Your task to perform on an android device: change timer sound Image 0: 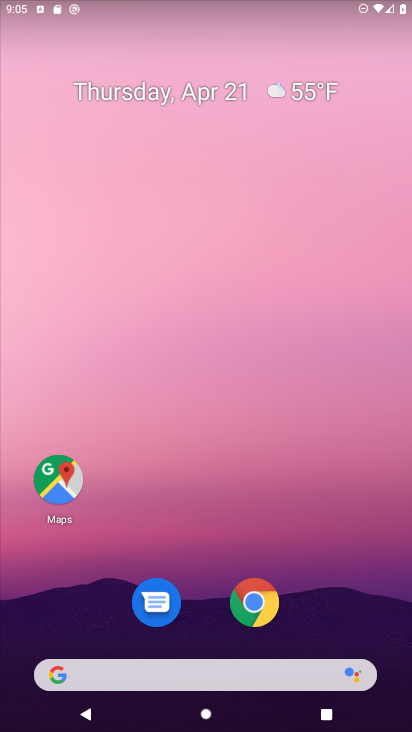
Step 0: drag from (202, 640) to (187, 266)
Your task to perform on an android device: change timer sound Image 1: 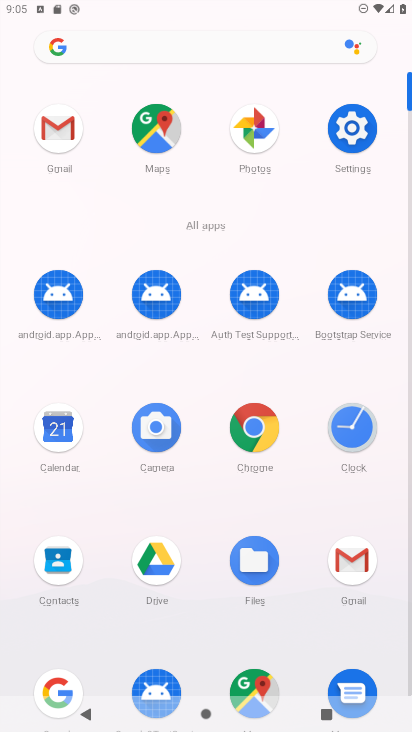
Step 1: click (347, 427)
Your task to perform on an android device: change timer sound Image 2: 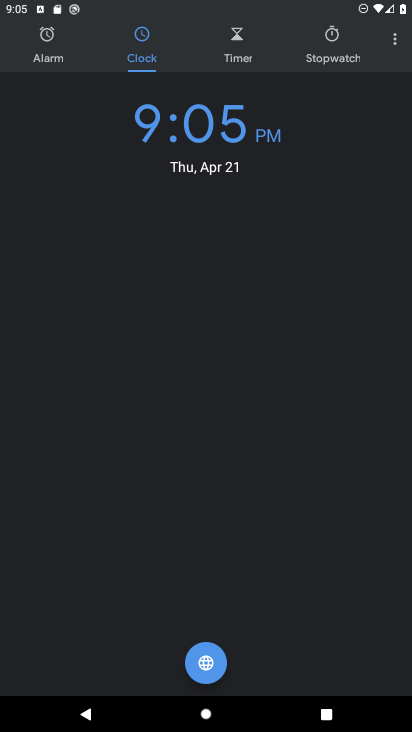
Step 2: click (405, 40)
Your task to perform on an android device: change timer sound Image 3: 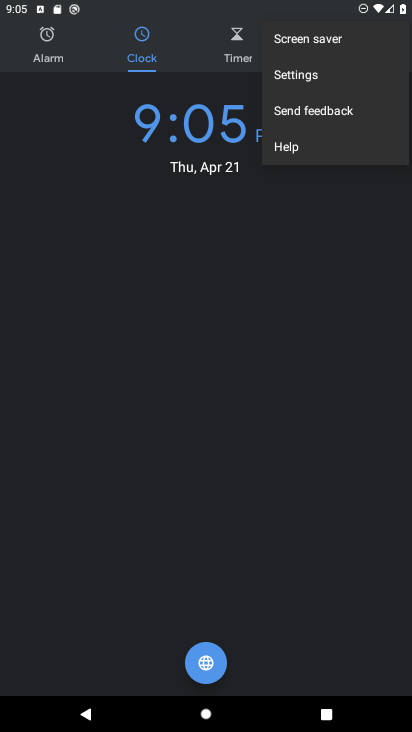
Step 3: click (292, 83)
Your task to perform on an android device: change timer sound Image 4: 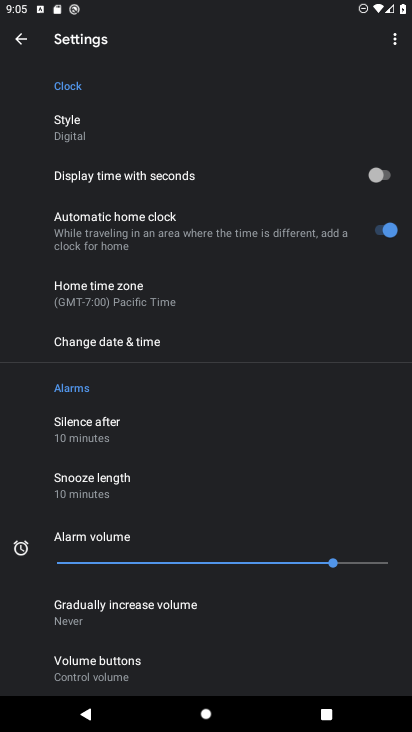
Step 4: drag from (283, 659) to (280, 200)
Your task to perform on an android device: change timer sound Image 5: 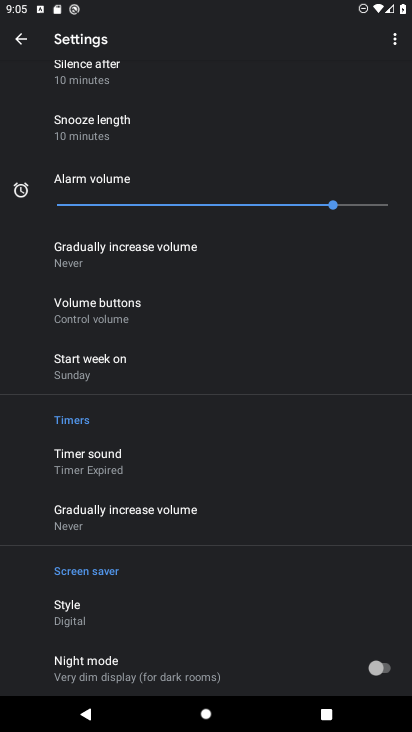
Step 5: click (169, 445)
Your task to perform on an android device: change timer sound Image 6: 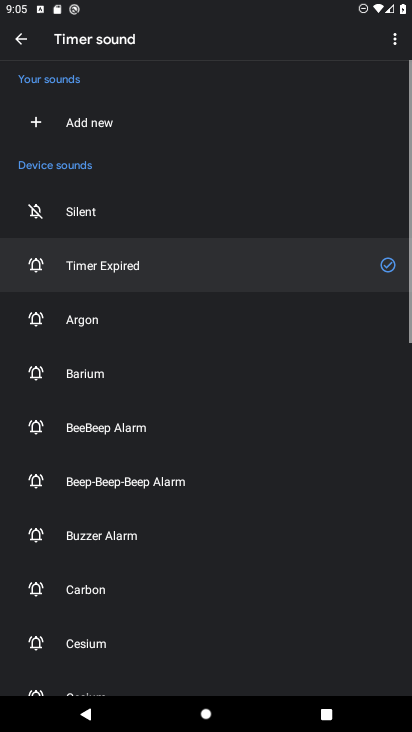
Step 6: click (169, 445)
Your task to perform on an android device: change timer sound Image 7: 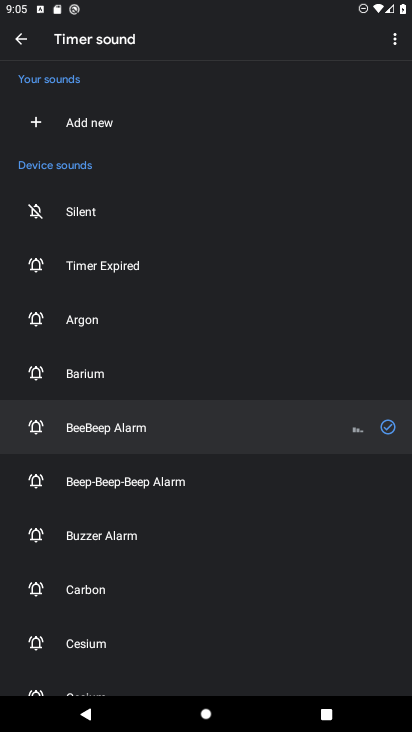
Step 7: task complete